Your task to perform on an android device: open chrome privacy settings Image 0: 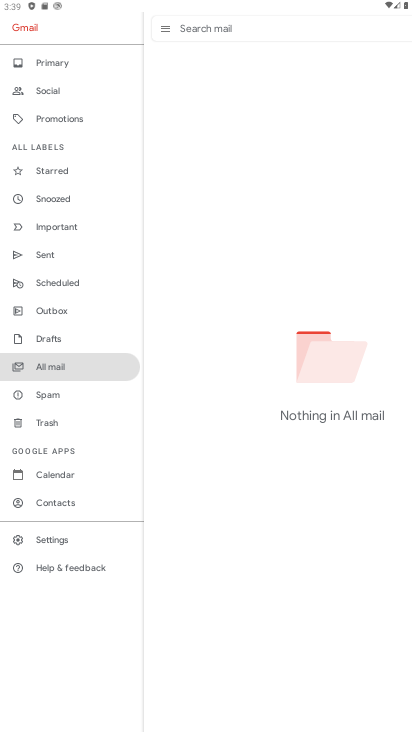
Step 0: press home button
Your task to perform on an android device: open chrome privacy settings Image 1: 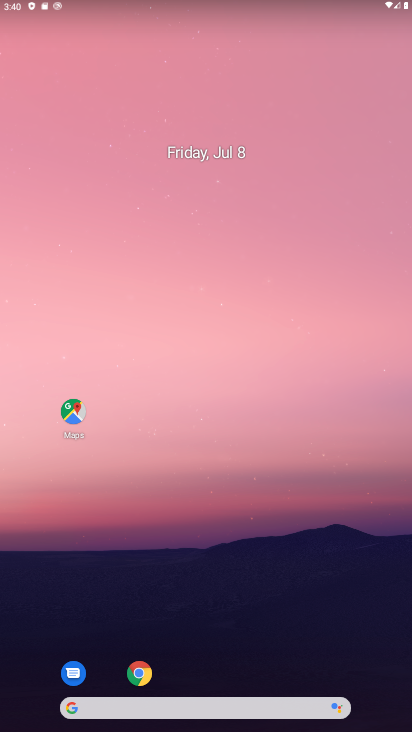
Step 1: click (137, 678)
Your task to perform on an android device: open chrome privacy settings Image 2: 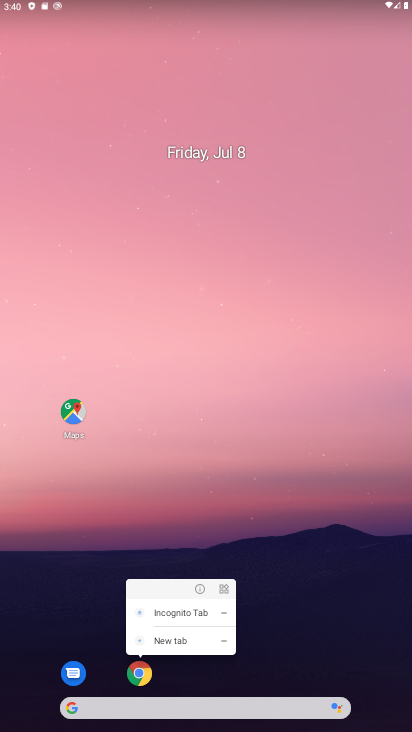
Step 2: click (147, 670)
Your task to perform on an android device: open chrome privacy settings Image 3: 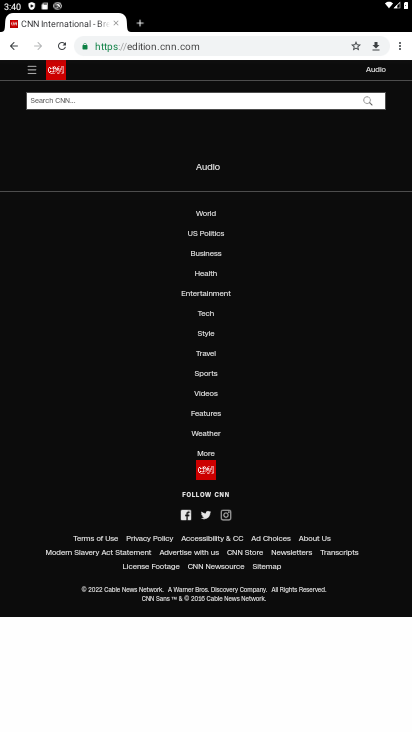
Step 3: drag from (400, 46) to (315, 306)
Your task to perform on an android device: open chrome privacy settings Image 4: 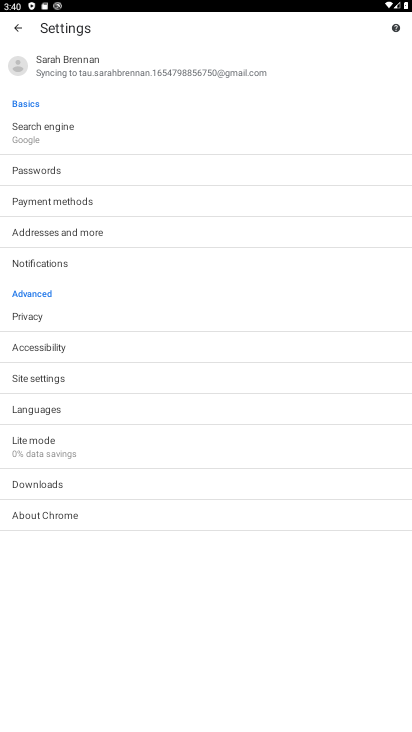
Step 4: click (22, 318)
Your task to perform on an android device: open chrome privacy settings Image 5: 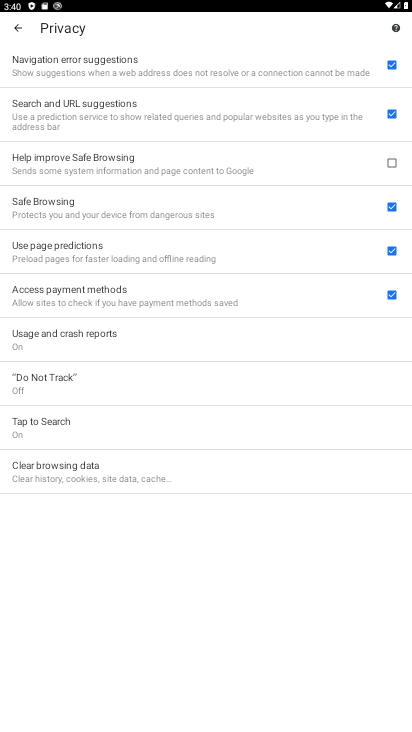
Step 5: task complete